Your task to perform on an android device: Go to sound settings Image 0: 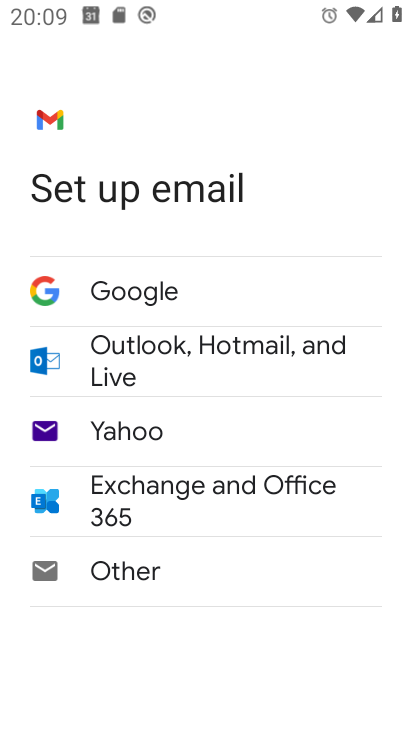
Step 0: press back button
Your task to perform on an android device: Go to sound settings Image 1: 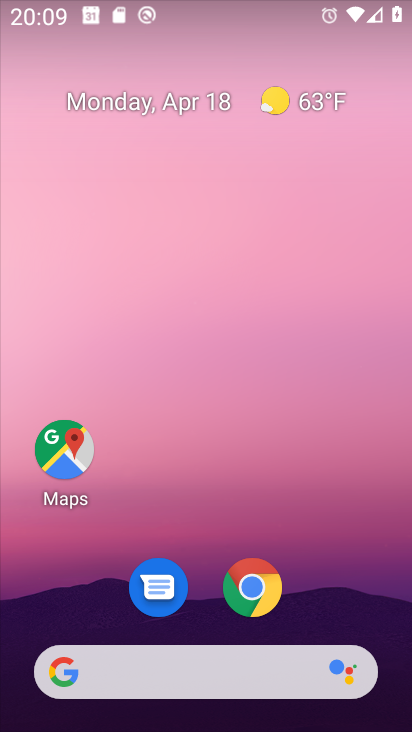
Step 1: drag from (326, 602) to (248, 170)
Your task to perform on an android device: Go to sound settings Image 2: 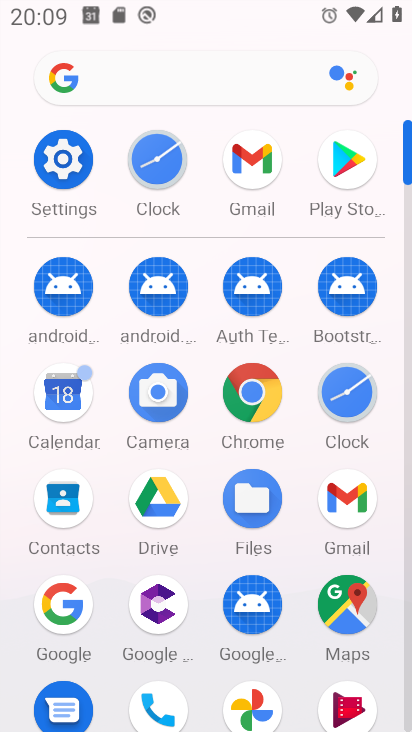
Step 2: click (61, 198)
Your task to perform on an android device: Go to sound settings Image 3: 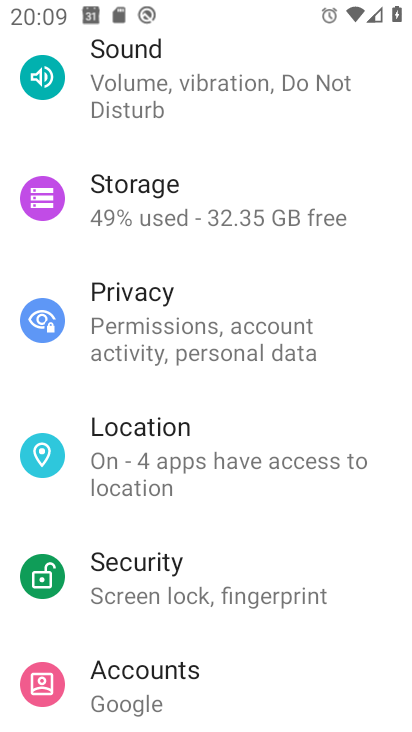
Step 3: drag from (222, 318) to (387, 613)
Your task to perform on an android device: Go to sound settings Image 4: 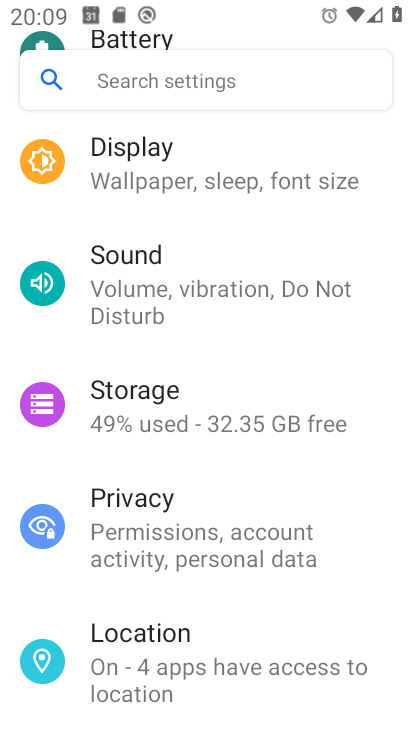
Step 4: click (265, 283)
Your task to perform on an android device: Go to sound settings Image 5: 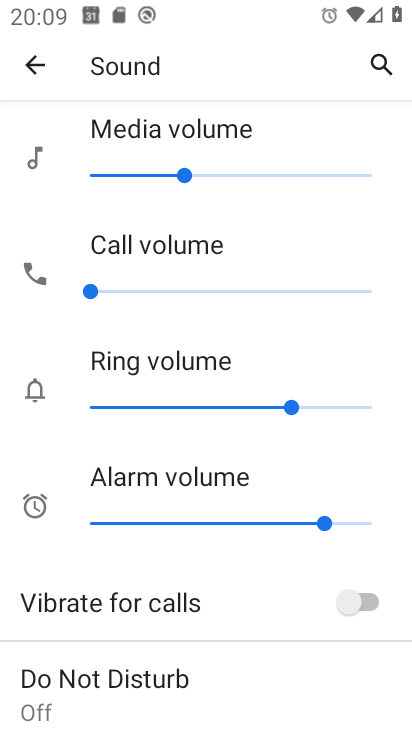
Step 5: task complete